Your task to perform on an android device: create a new album in the google photos Image 0: 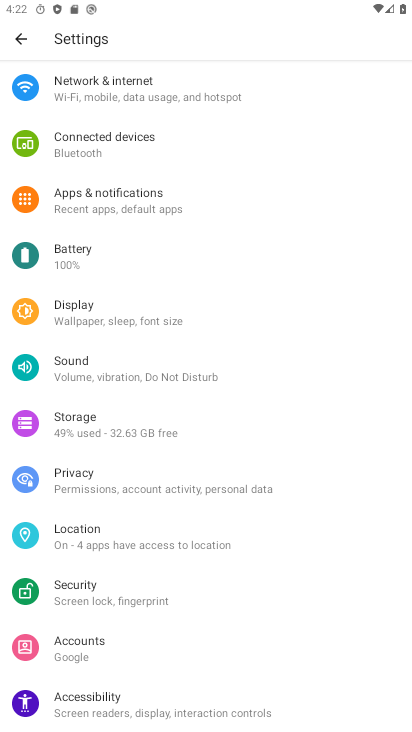
Step 0: press home button
Your task to perform on an android device: create a new album in the google photos Image 1: 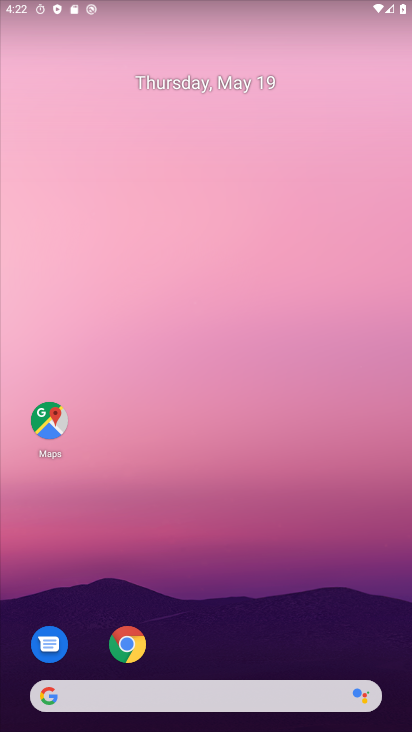
Step 1: drag from (213, 675) to (209, 225)
Your task to perform on an android device: create a new album in the google photos Image 2: 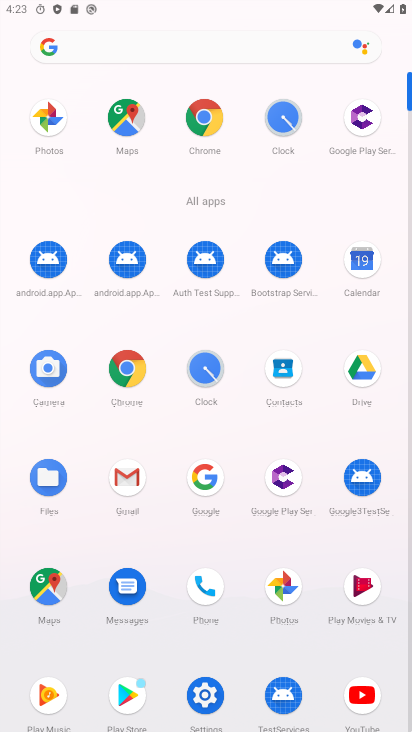
Step 2: click (279, 585)
Your task to perform on an android device: create a new album in the google photos Image 3: 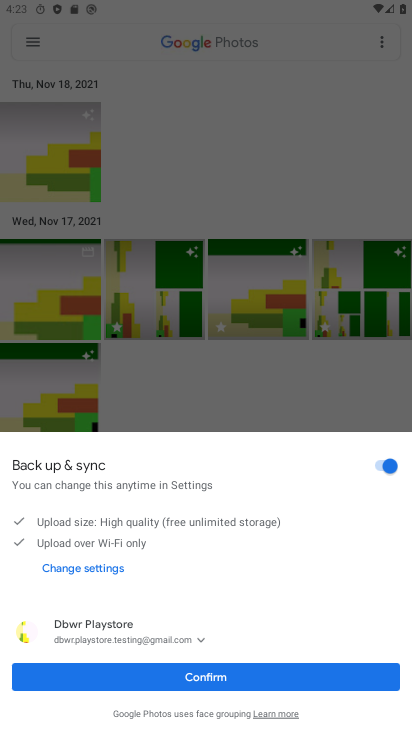
Step 3: click (215, 680)
Your task to perform on an android device: create a new album in the google photos Image 4: 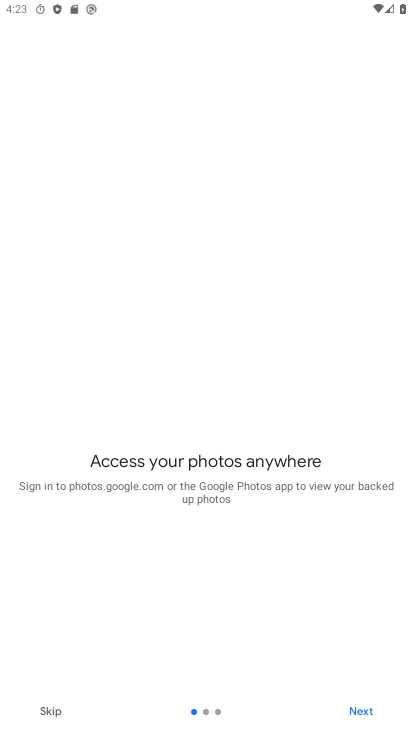
Step 4: click (359, 711)
Your task to perform on an android device: create a new album in the google photos Image 5: 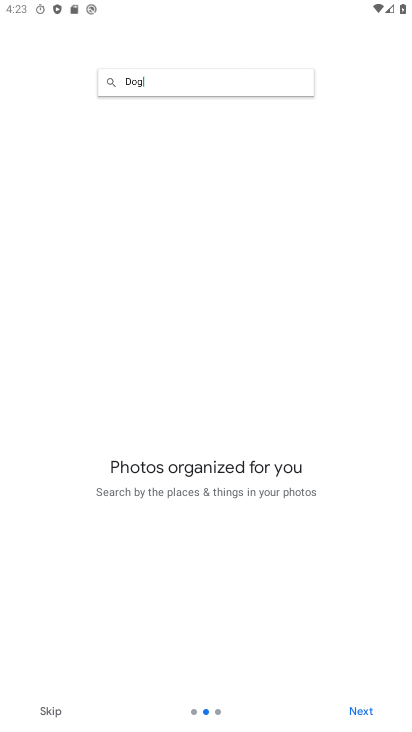
Step 5: click (359, 711)
Your task to perform on an android device: create a new album in the google photos Image 6: 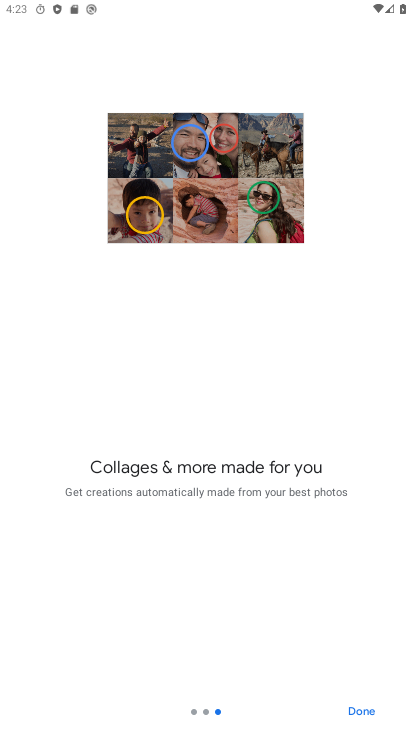
Step 6: click (359, 711)
Your task to perform on an android device: create a new album in the google photos Image 7: 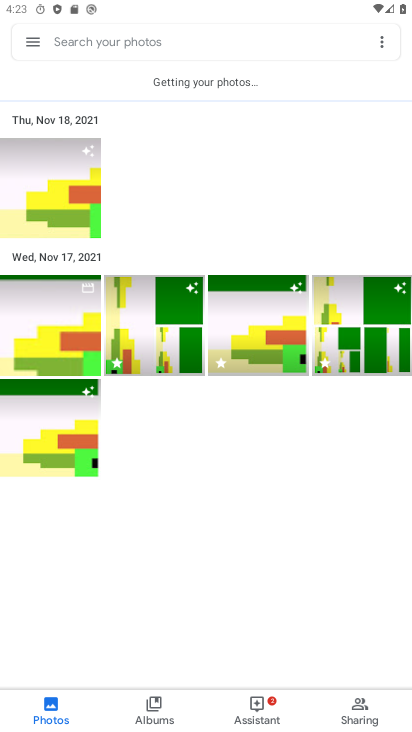
Step 7: click (147, 701)
Your task to perform on an android device: create a new album in the google photos Image 8: 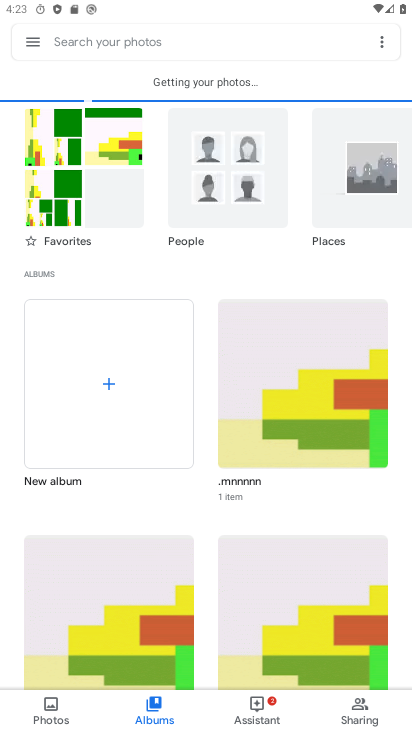
Step 8: click (118, 383)
Your task to perform on an android device: create a new album in the google photos Image 9: 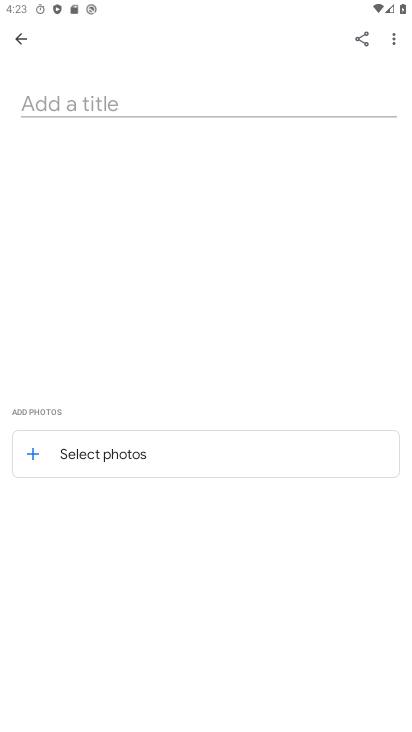
Step 9: click (127, 459)
Your task to perform on an android device: create a new album in the google photos Image 10: 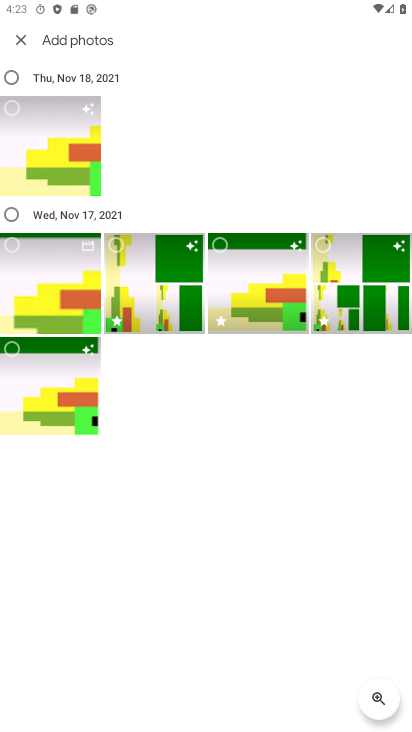
Step 10: click (12, 73)
Your task to perform on an android device: create a new album in the google photos Image 11: 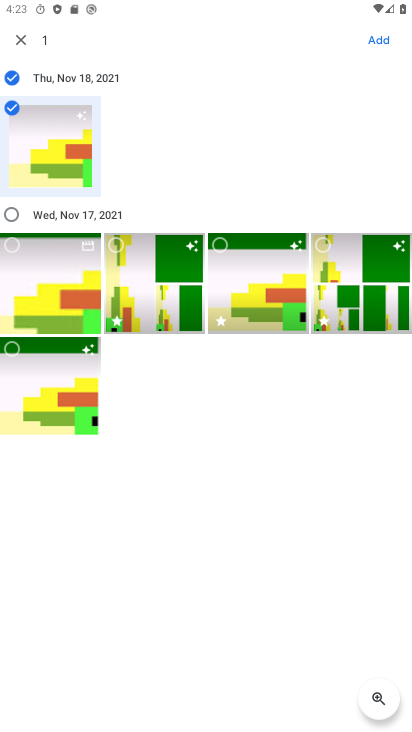
Step 11: click (9, 213)
Your task to perform on an android device: create a new album in the google photos Image 12: 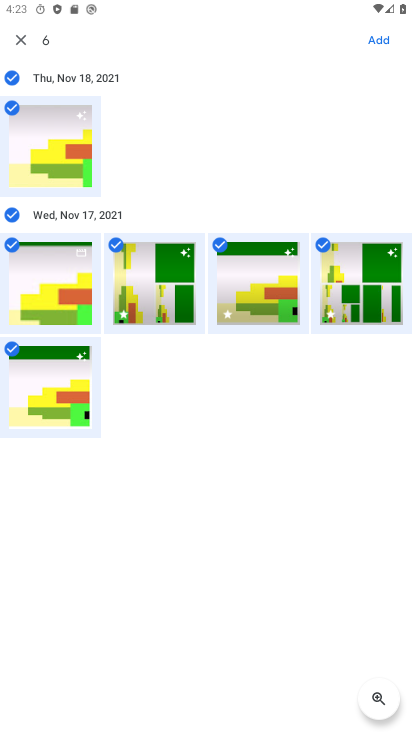
Step 12: click (376, 39)
Your task to perform on an android device: create a new album in the google photos Image 13: 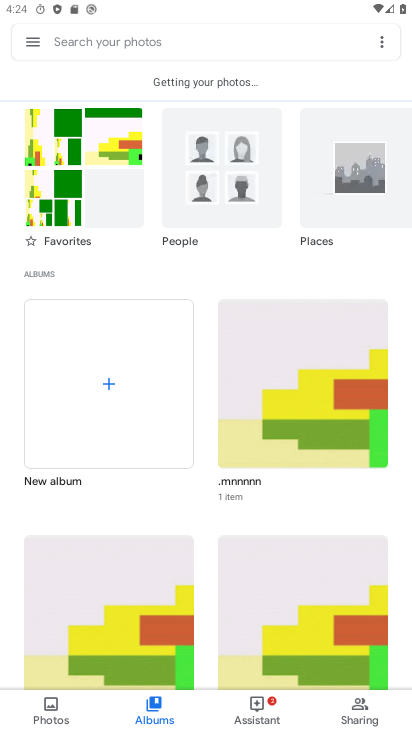
Step 13: task complete